Your task to perform on an android device: toggle airplane mode Image 0: 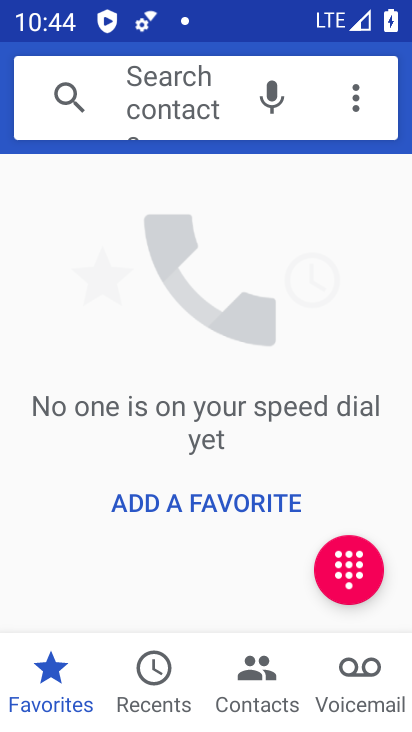
Step 0: press home button
Your task to perform on an android device: toggle airplane mode Image 1: 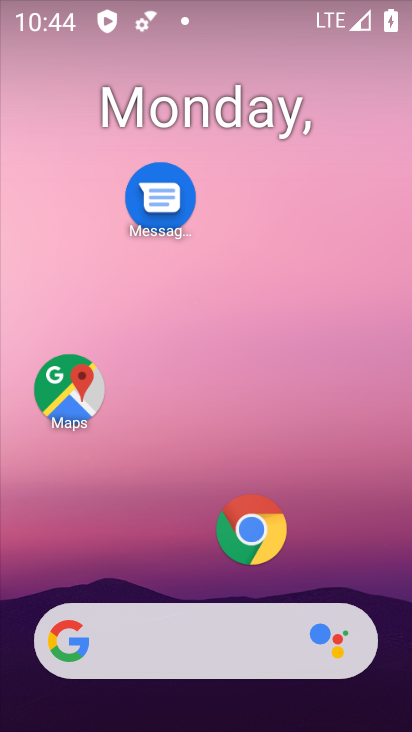
Step 1: drag from (143, 568) to (326, 172)
Your task to perform on an android device: toggle airplane mode Image 2: 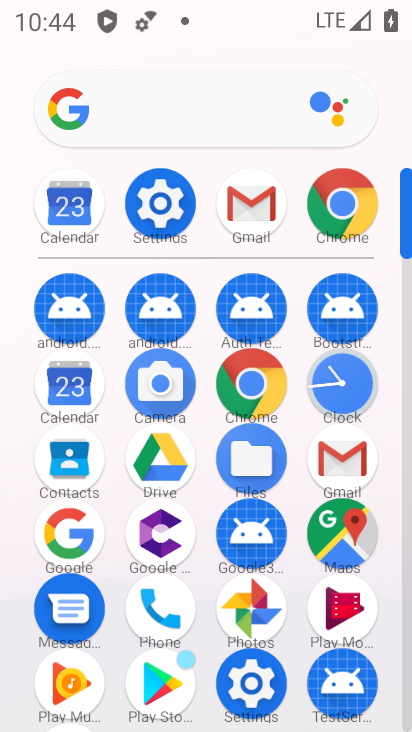
Step 2: click (238, 692)
Your task to perform on an android device: toggle airplane mode Image 3: 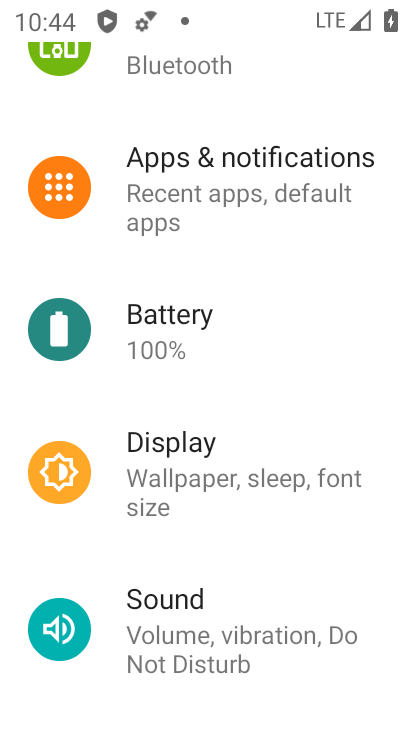
Step 3: drag from (264, 103) to (257, 515)
Your task to perform on an android device: toggle airplane mode Image 4: 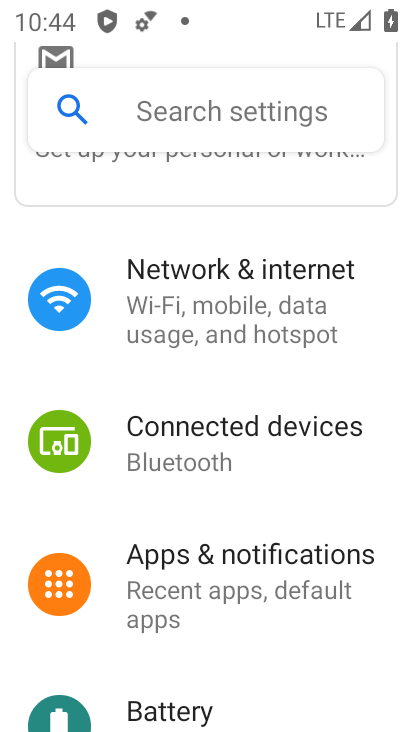
Step 4: click (266, 336)
Your task to perform on an android device: toggle airplane mode Image 5: 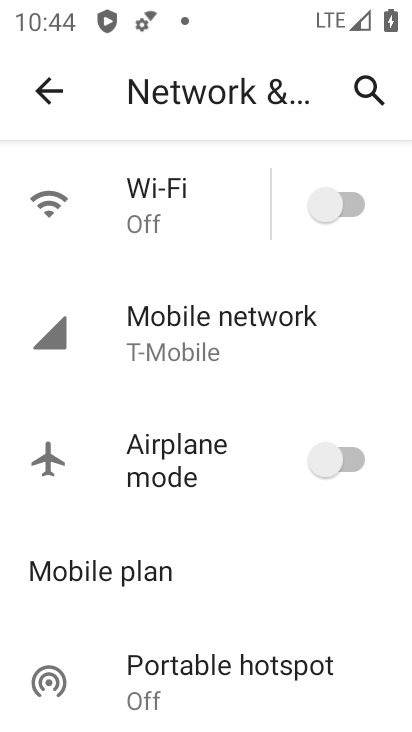
Step 5: click (332, 479)
Your task to perform on an android device: toggle airplane mode Image 6: 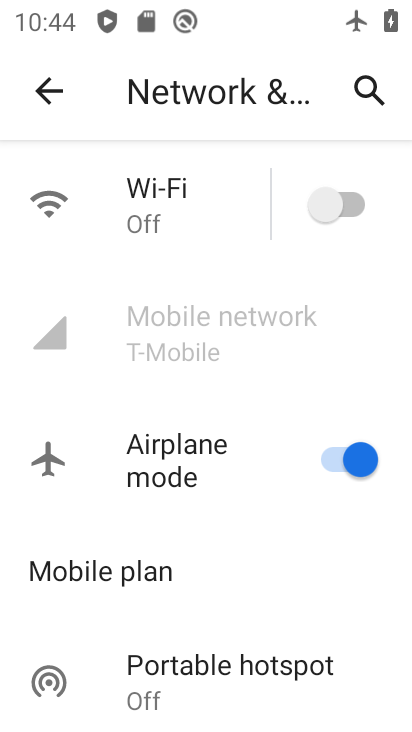
Step 6: task complete